Your task to perform on an android device: Open my contact list Image 0: 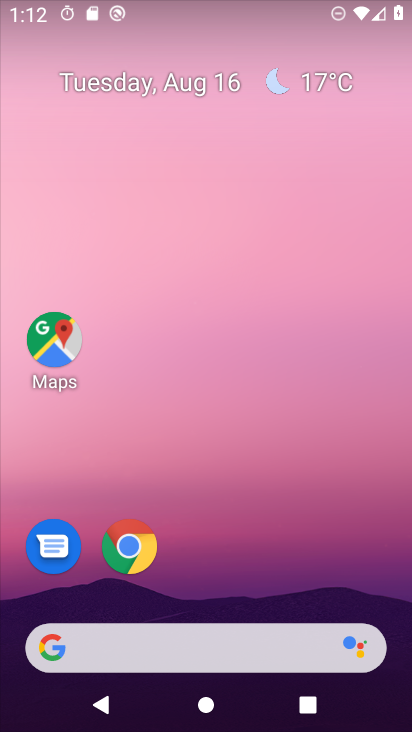
Step 0: drag from (258, 618) to (238, 127)
Your task to perform on an android device: Open my contact list Image 1: 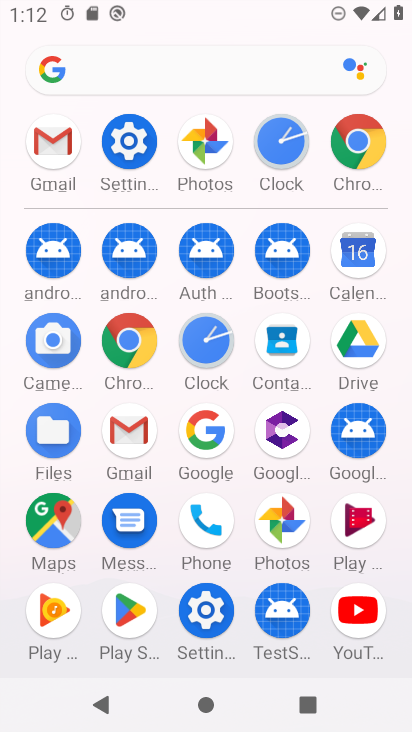
Step 1: click (280, 338)
Your task to perform on an android device: Open my contact list Image 2: 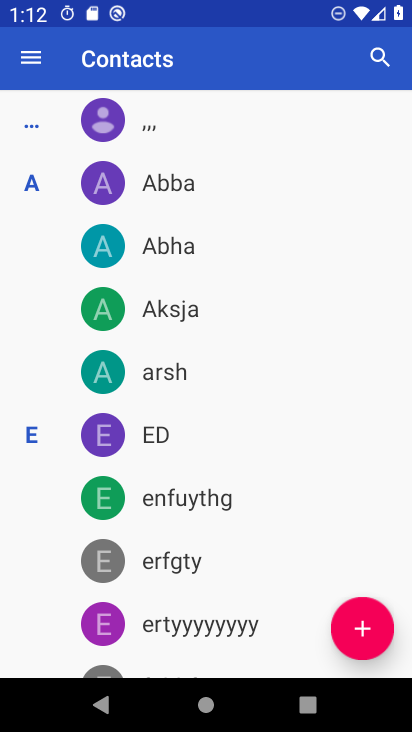
Step 2: task complete